Your task to perform on an android device: toggle show notifications on the lock screen Image 0: 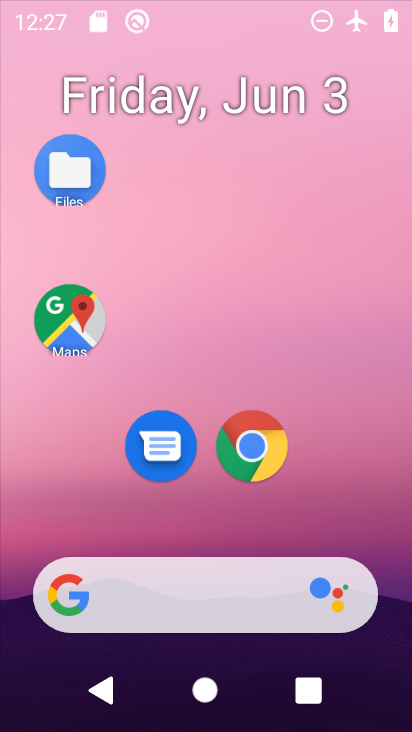
Step 0: drag from (258, 570) to (139, 122)
Your task to perform on an android device: toggle show notifications on the lock screen Image 1: 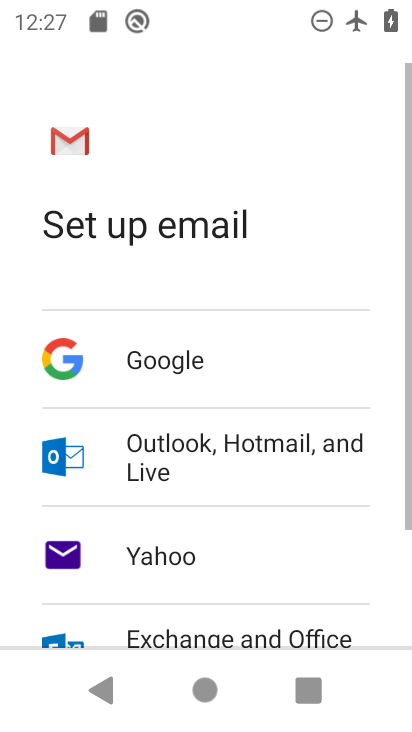
Step 1: press back button
Your task to perform on an android device: toggle show notifications on the lock screen Image 2: 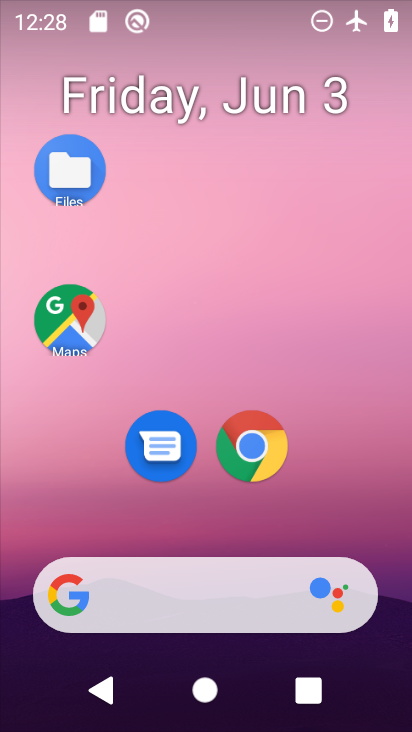
Step 2: drag from (238, 668) to (154, 189)
Your task to perform on an android device: toggle show notifications on the lock screen Image 3: 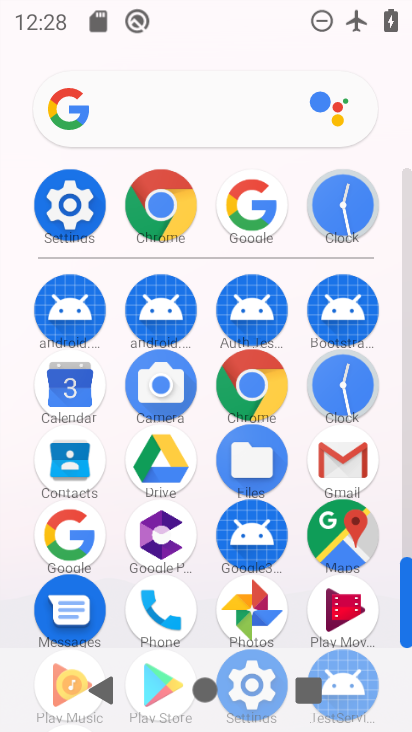
Step 3: click (64, 193)
Your task to perform on an android device: toggle show notifications on the lock screen Image 4: 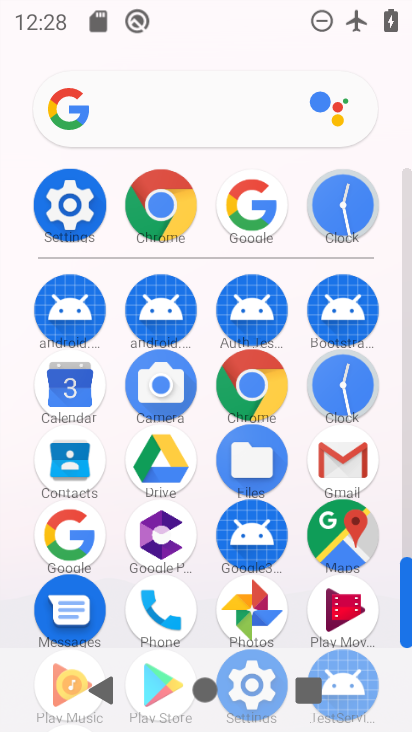
Step 4: click (65, 194)
Your task to perform on an android device: toggle show notifications on the lock screen Image 5: 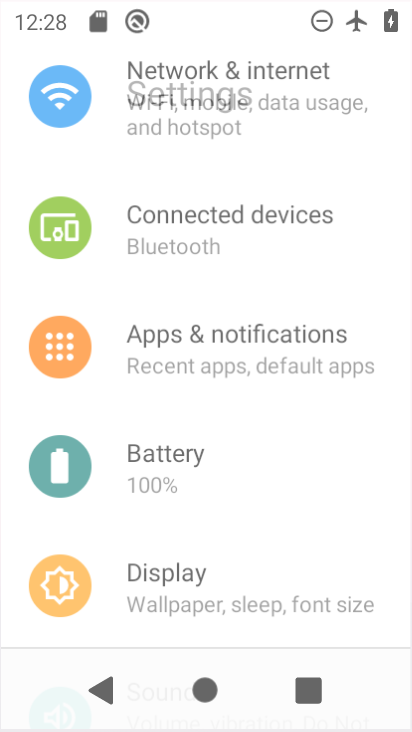
Step 5: click (66, 195)
Your task to perform on an android device: toggle show notifications on the lock screen Image 6: 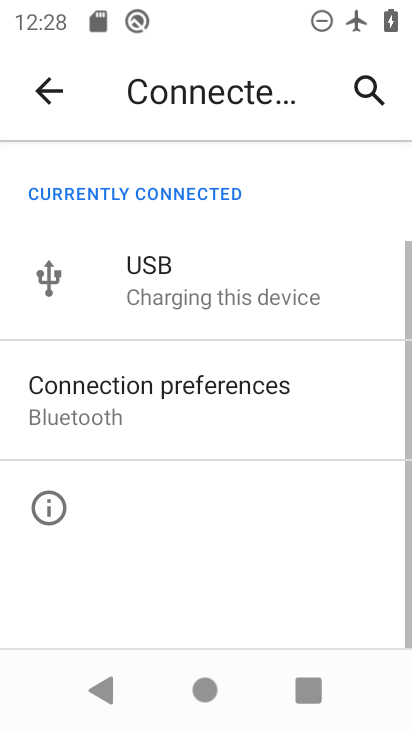
Step 6: click (40, 93)
Your task to perform on an android device: toggle show notifications on the lock screen Image 7: 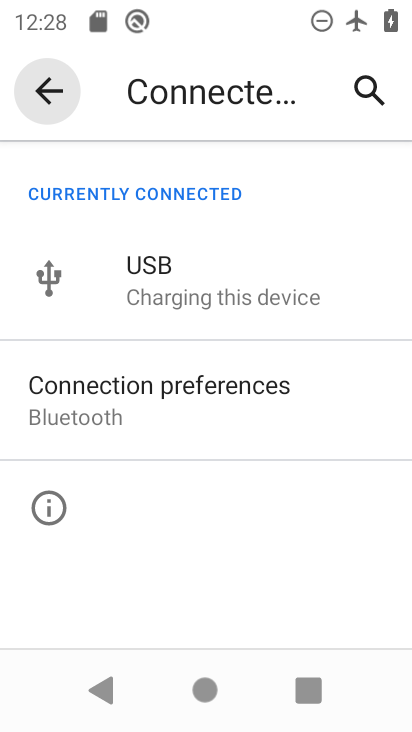
Step 7: click (40, 93)
Your task to perform on an android device: toggle show notifications on the lock screen Image 8: 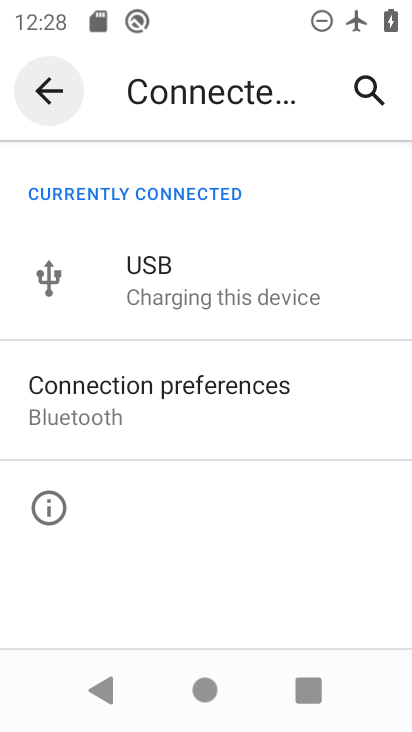
Step 8: click (40, 93)
Your task to perform on an android device: toggle show notifications on the lock screen Image 9: 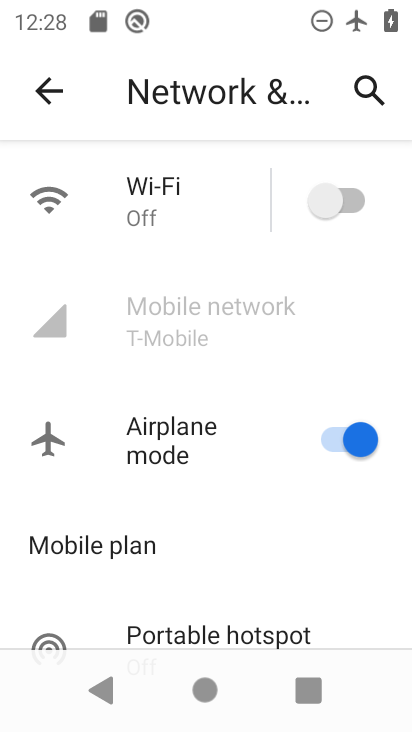
Step 9: click (41, 84)
Your task to perform on an android device: toggle show notifications on the lock screen Image 10: 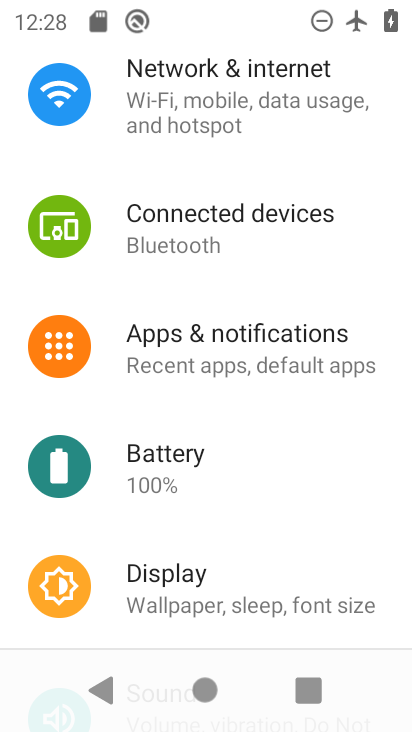
Step 10: drag from (212, 154) to (224, 510)
Your task to perform on an android device: toggle show notifications on the lock screen Image 11: 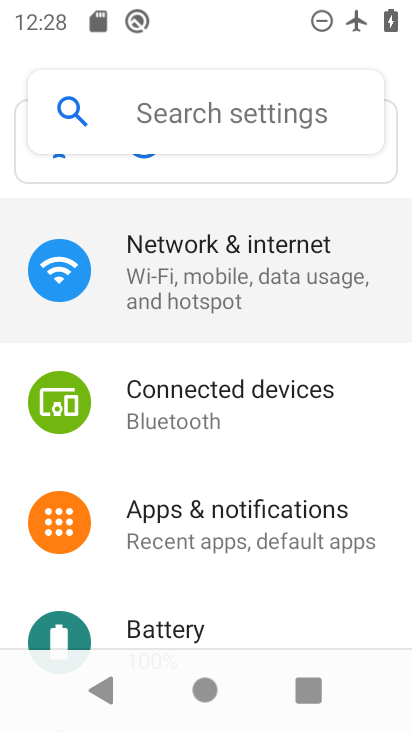
Step 11: drag from (181, 149) to (186, 524)
Your task to perform on an android device: toggle show notifications on the lock screen Image 12: 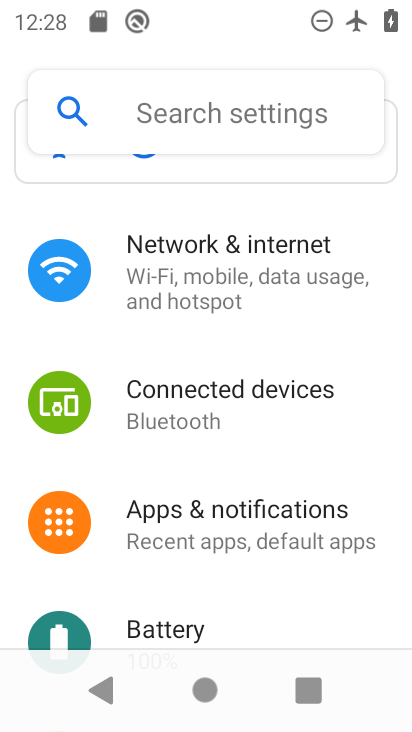
Step 12: click (237, 537)
Your task to perform on an android device: toggle show notifications on the lock screen Image 13: 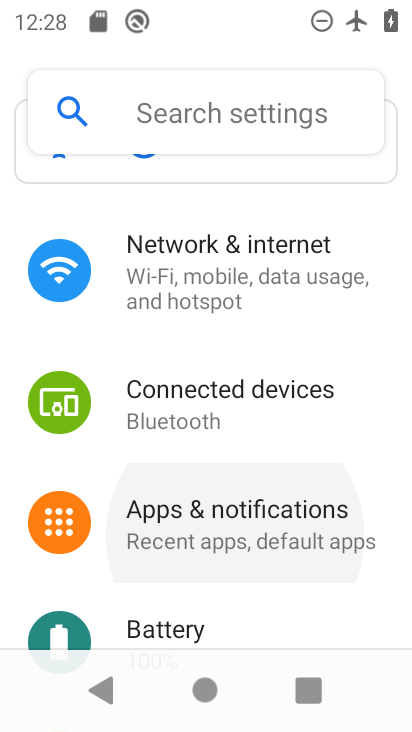
Step 13: click (236, 537)
Your task to perform on an android device: toggle show notifications on the lock screen Image 14: 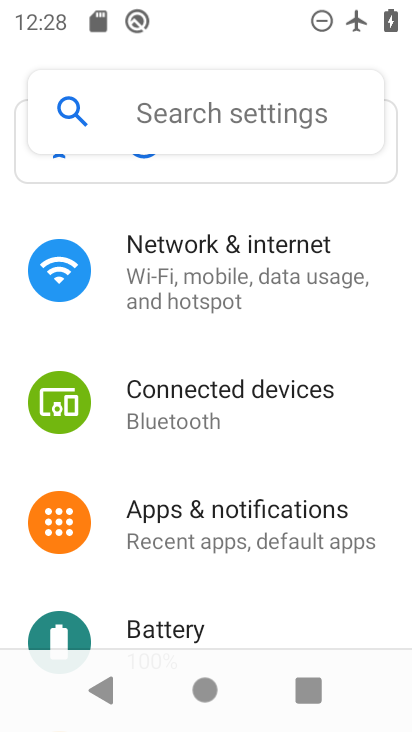
Step 14: click (236, 539)
Your task to perform on an android device: toggle show notifications on the lock screen Image 15: 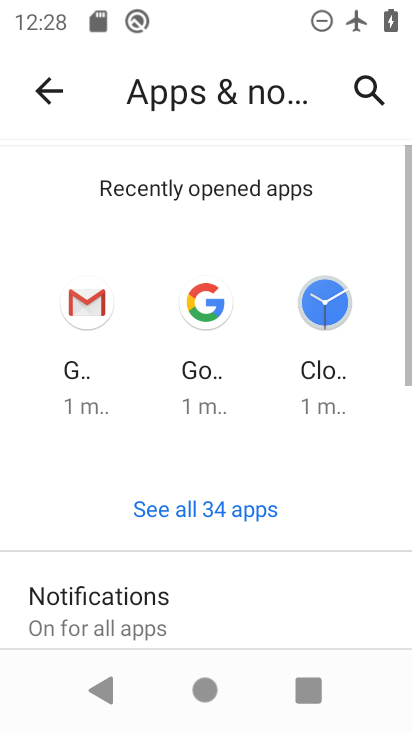
Step 15: click (112, 604)
Your task to perform on an android device: toggle show notifications on the lock screen Image 16: 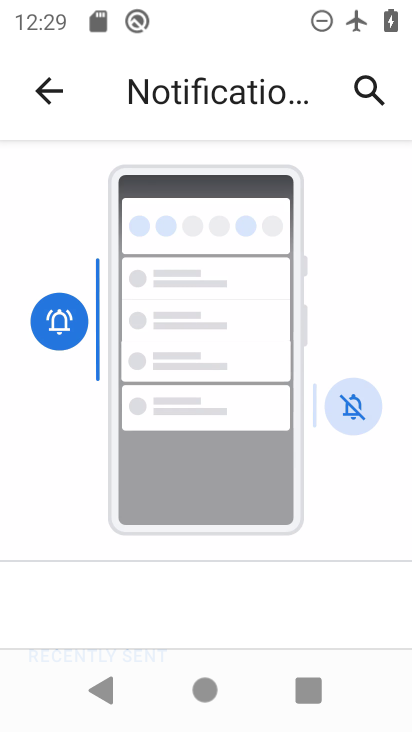
Step 16: drag from (341, 480) to (297, 214)
Your task to perform on an android device: toggle show notifications on the lock screen Image 17: 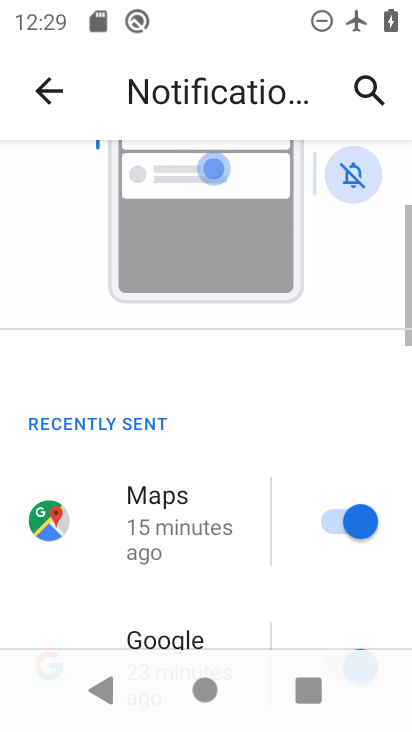
Step 17: drag from (299, 315) to (269, 183)
Your task to perform on an android device: toggle show notifications on the lock screen Image 18: 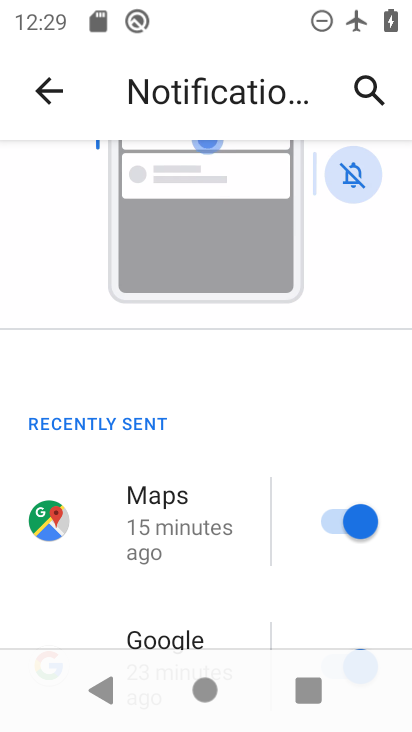
Step 18: drag from (292, 384) to (264, 164)
Your task to perform on an android device: toggle show notifications on the lock screen Image 19: 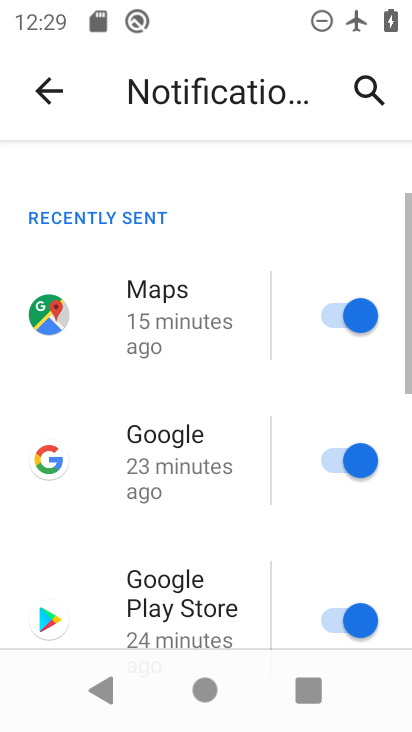
Step 19: drag from (247, 485) to (208, 203)
Your task to perform on an android device: toggle show notifications on the lock screen Image 20: 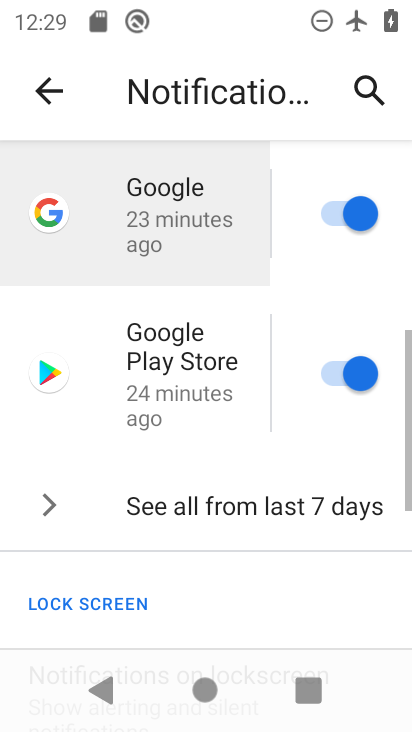
Step 20: drag from (214, 486) to (173, 177)
Your task to perform on an android device: toggle show notifications on the lock screen Image 21: 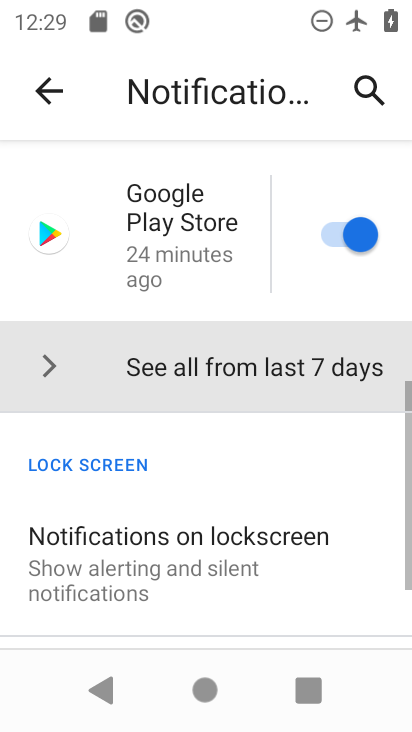
Step 21: drag from (191, 461) to (182, 191)
Your task to perform on an android device: toggle show notifications on the lock screen Image 22: 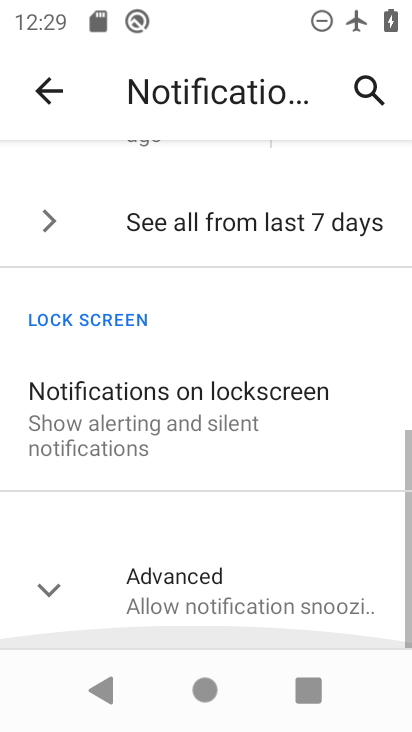
Step 22: drag from (153, 447) to (122, 263)
Your task to perform on an android device: toggle show notifications on the lock screen Image 23: 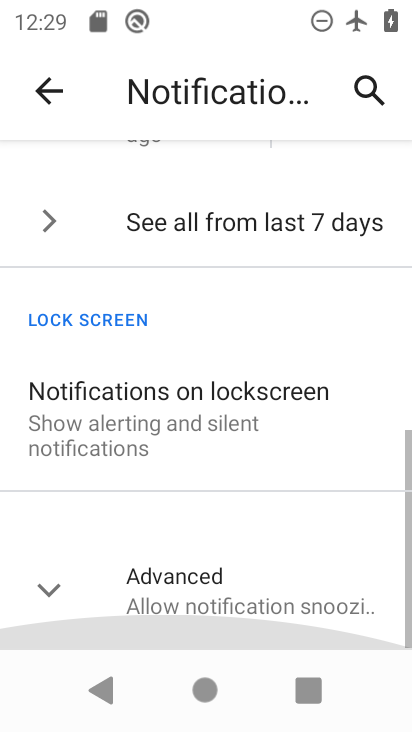
Step 23: drag from (219, 516) to (211, 153)
Your task to perform on an android device: toggle show notifications on the lock screen Image 24: 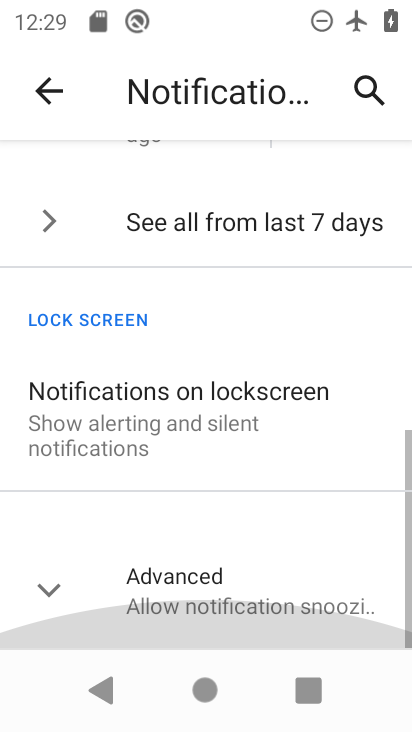
Step 24: click (265, 119)
Your task to perform on an android device: toggle show notifications on the lock screen Image 25: 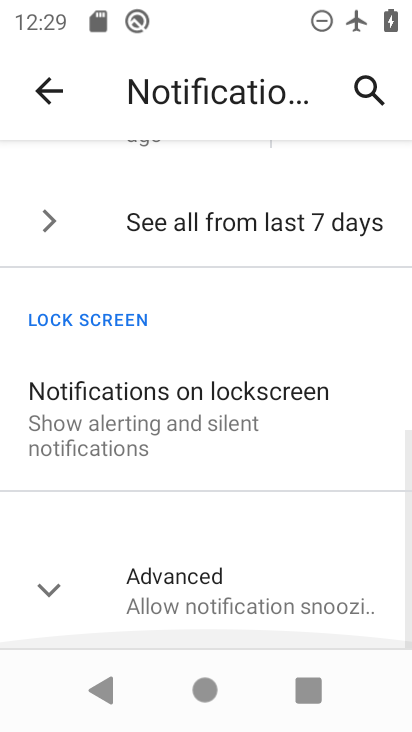
Step 25: drag from (249, 474) to (311, 123)
Your task to perform on an android device: toggle show notifications on the lock screen Image 26: 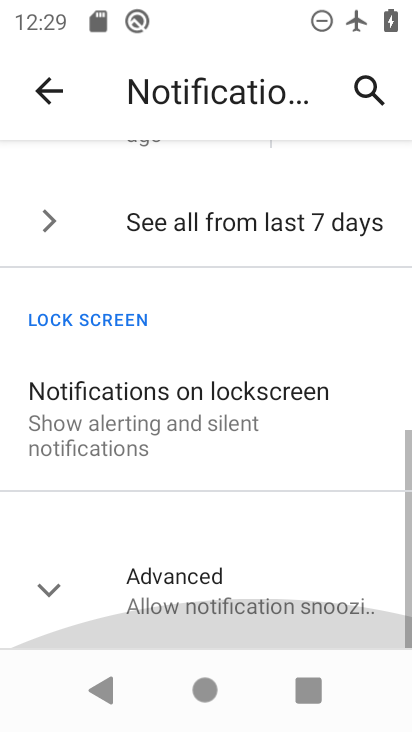
Step 26: drag from (259, 499) to (226, 129)
Your task to perform on an android device: toggle show notifications on the lock screen Image 27: 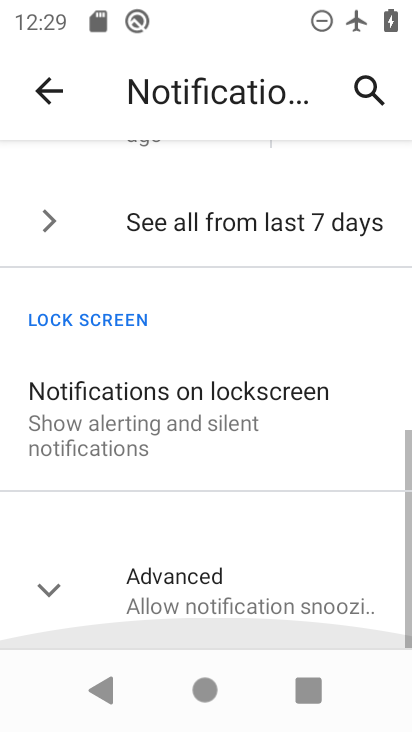
Step 27: click (141, 204)
Your task to perform on an android device: toggle show notifications on the lock screen Image 28: 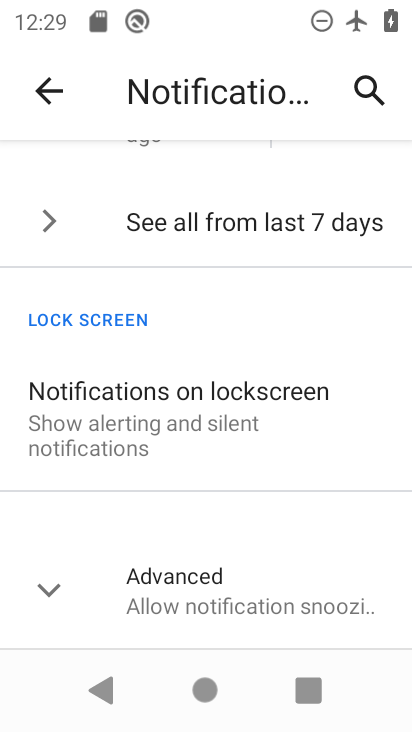
Step 28: click (131, 419)
Your task to perform on an android device: toggle show notifications on the lock screen Image 29: 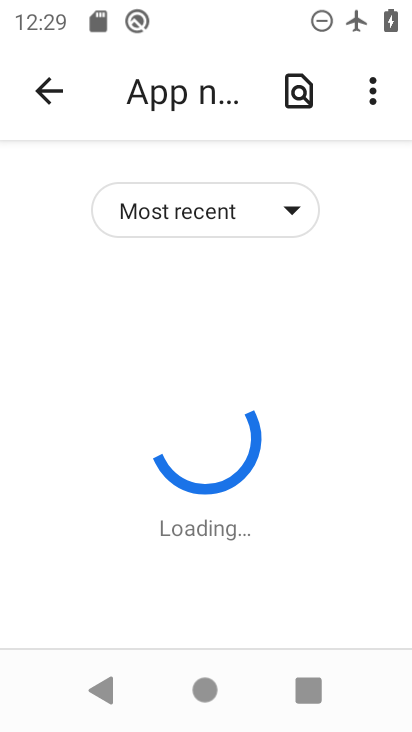
Step 29: click (129, 419)
Your task to perform on an android device: toggle show notifications on the lock screen Image 30: 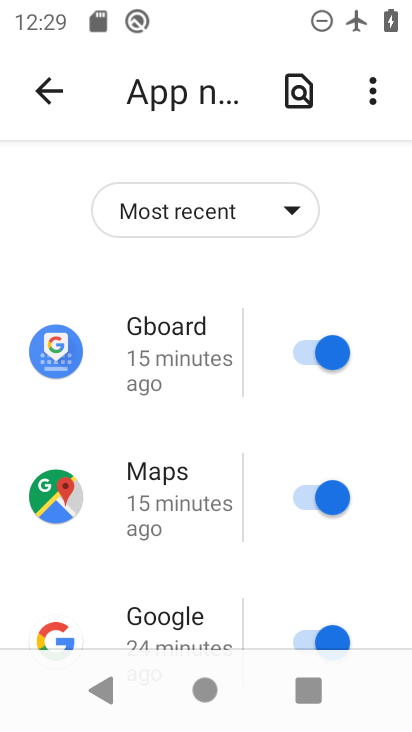
Step 30: drag from (221, 488) to (198, 171)
Your task to perform on an android device: toggle show notifications on the lock screen Image 31: 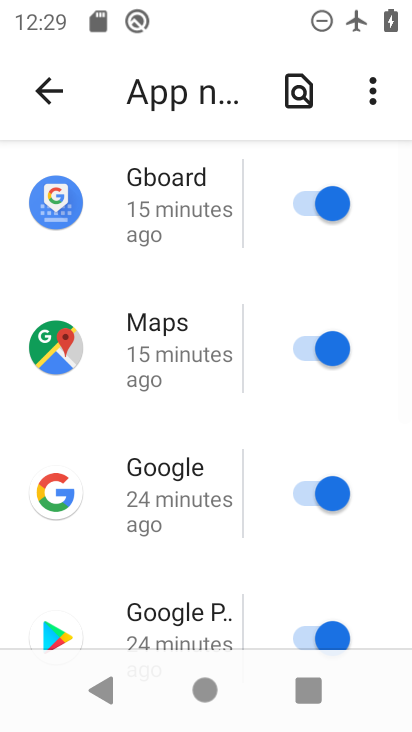
Step 31: drag from (248, 512) to (196, 152)
Your task to perform on an android device: toggle show notifications on the lock screen Image 32: 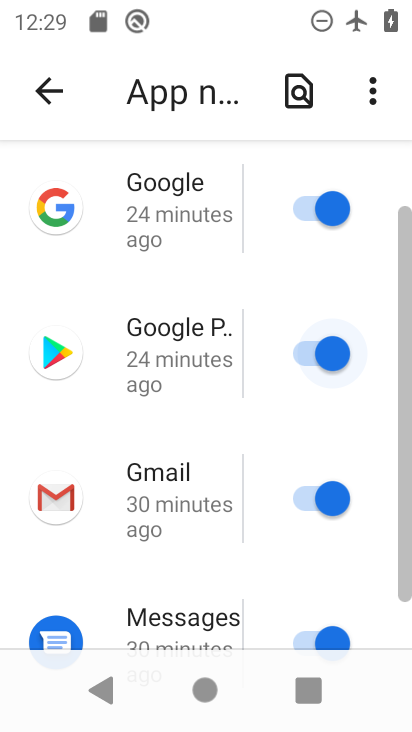
Step 32: drag from (209, 503) to (187, 116)
Your task to perform on an android device: toggle show notifications on the lock screen Image 33: 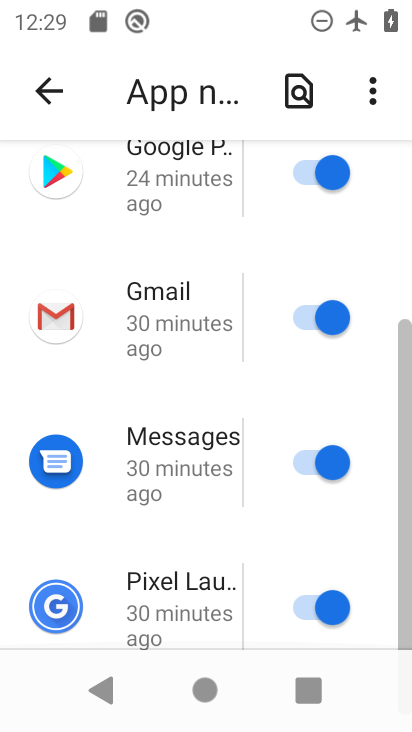
Step 33: drag from (237, 423) to (176, 94)
Your task to perform on an android device: toggle show notifications on the lock screen Image 34: 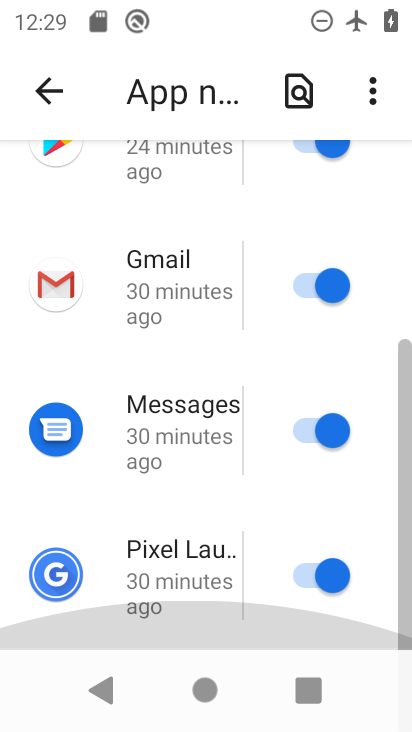
Step 34: drag from (234, 394) to (175, 0)
Your task to perform on an android device: toggle show notifications on the lock screen Image 35: 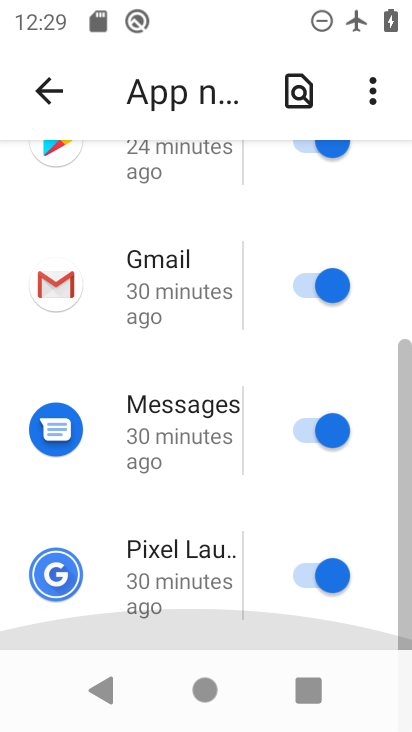
Step 35: drag from (233, 435) to (182, 45)
Your task to perform on an android device: toggle show notifications on the lock screen Image 36: 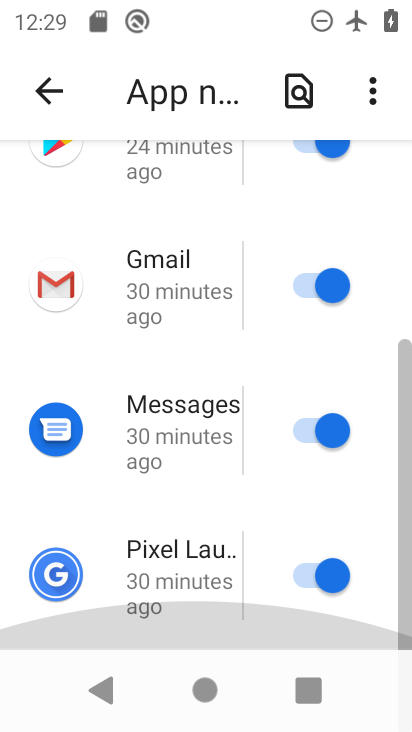
Step 36: drag from (210, 453) to (173, 99)
Your task to perform on an android device: toggle show notifications on the lock screen Image 37: 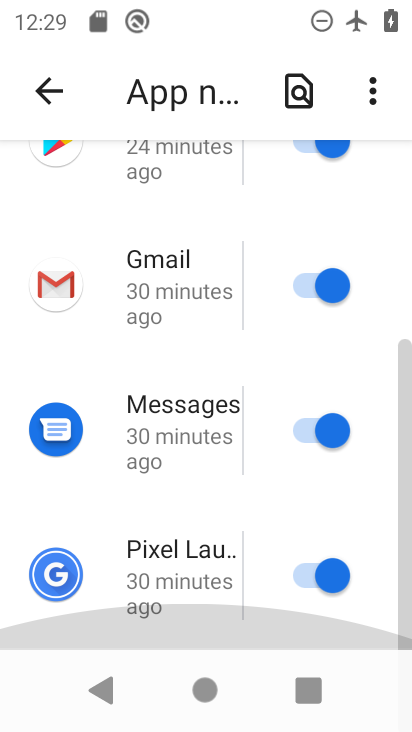
Step 37: drag from (233, 558) to (175, 171)
Your task to perform on an android device: toggle show notifications on the lock screen Image 38: 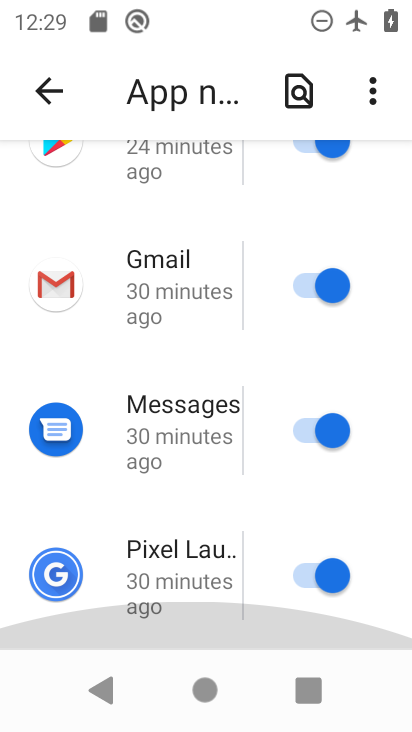
Step 38: drag from (182, 494) to (167, 123)
Your task to perform on an android device: toggle show notifications on the lock screen Image 39: 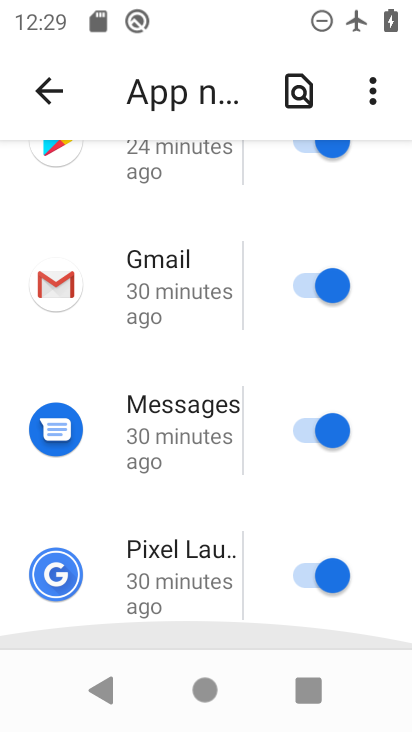
Step 39: drag from (194, 433) to (135, 36)
Your task to perform on an android device: toggle show notifications on the lock screen Image 40: 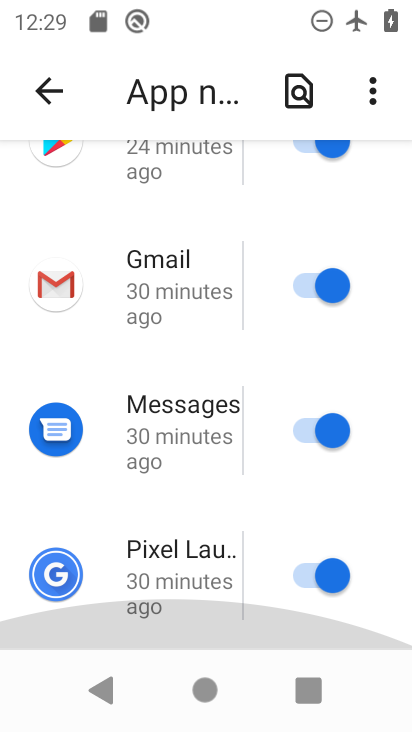
Step 40: drag from (175, 431) to (159, 155)
Your task to perform on an android device: toggle show notifications on the lock screen Image 41: 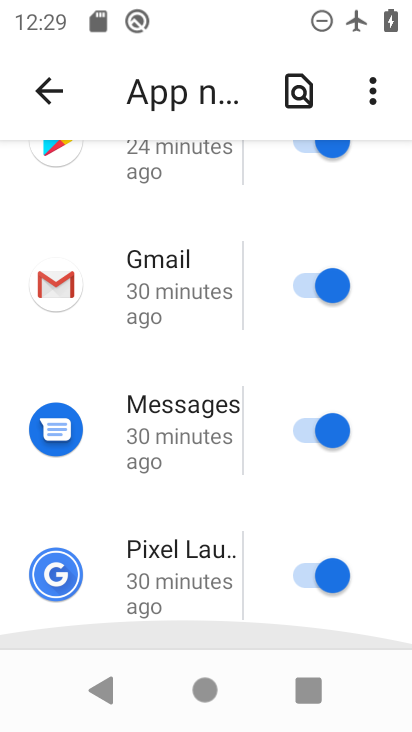
Step 41: drag from (229, 475) to (175, 72)
Your task to perform on an android device: toggle show notifications on the lock screen Image 42: 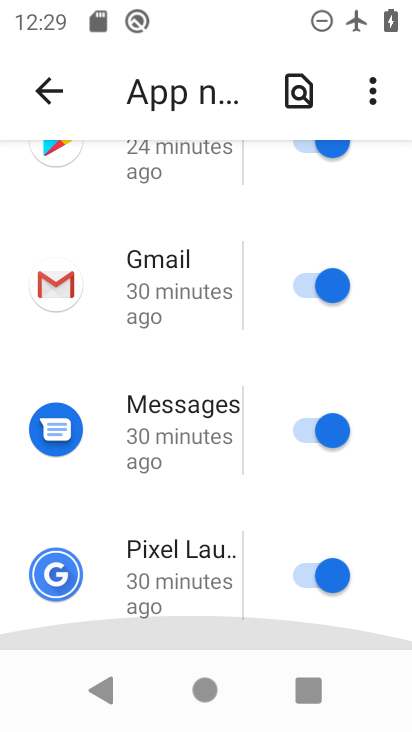
Step 42: drag from (227, 463) to (179, 229)
Your task to perform on an android device: toggle show notifications on the lock screen Image 43: 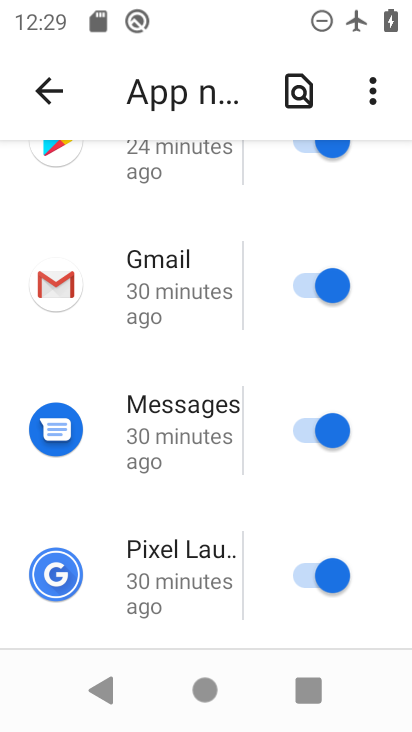
Step 43: click (49, 86)
Your task to perform on an android device: toggle show notifications on the lock screen Image 44: 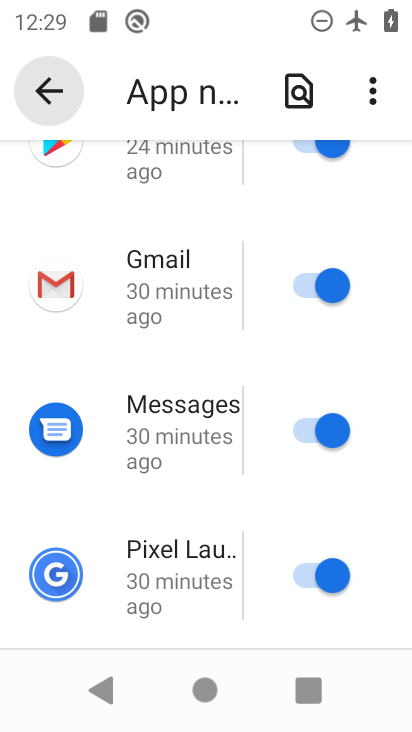
Step 44: click (212, 457)
Your task to perform on an android device: toggle show notifications on the lock screen Image 45: 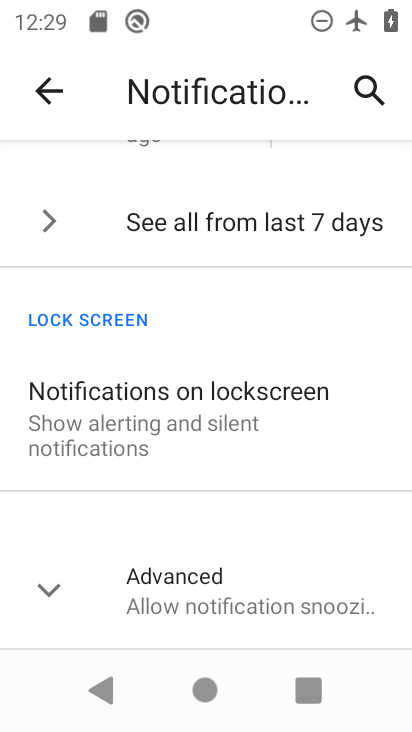
Step 45: drag from (138, 203) to (194, 447)
Your task to perform on an android device: toggle show notifications on the lock screen Image 46: 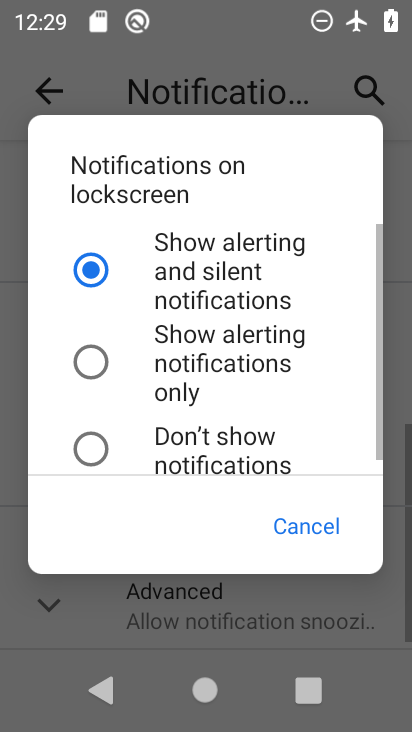
Step 46: drag from (166, 183) to (218, 473)
Your task to perform on an android device: toggle show notifications on the lock screen Image 47: 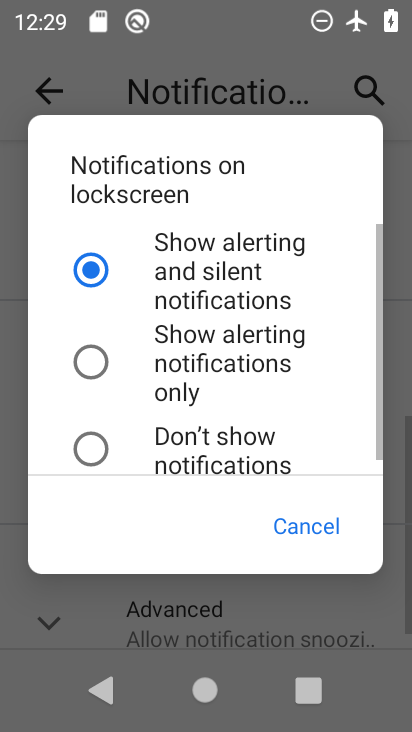
Step 47: drag from (173, 263) to (173, 551)
Your task to perform on an android device: toggle show notifications on the lock screen Image 48: 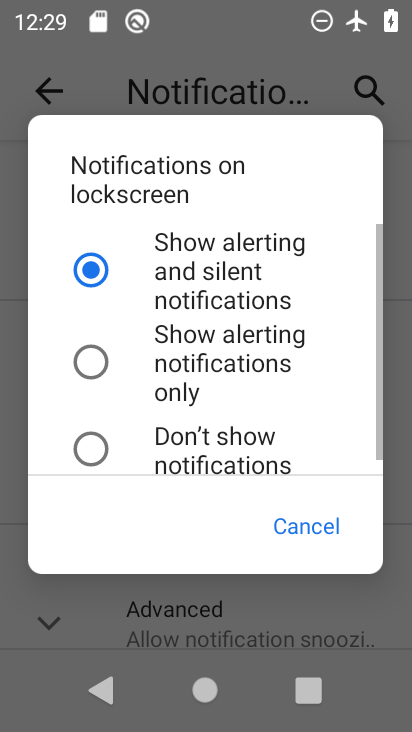
Step 48: click (299, 523)
Your task to perform on an android device: toggle show notifications on the lock screen Image 49: 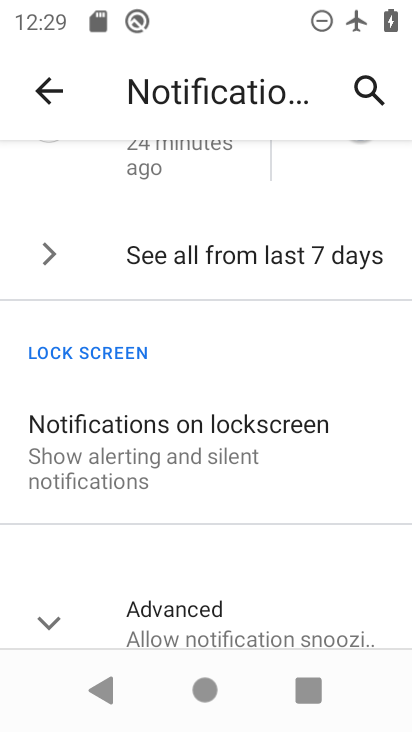
Step 49: task complete